Your task to perform on an android device: Open the stopwatch Image 0: 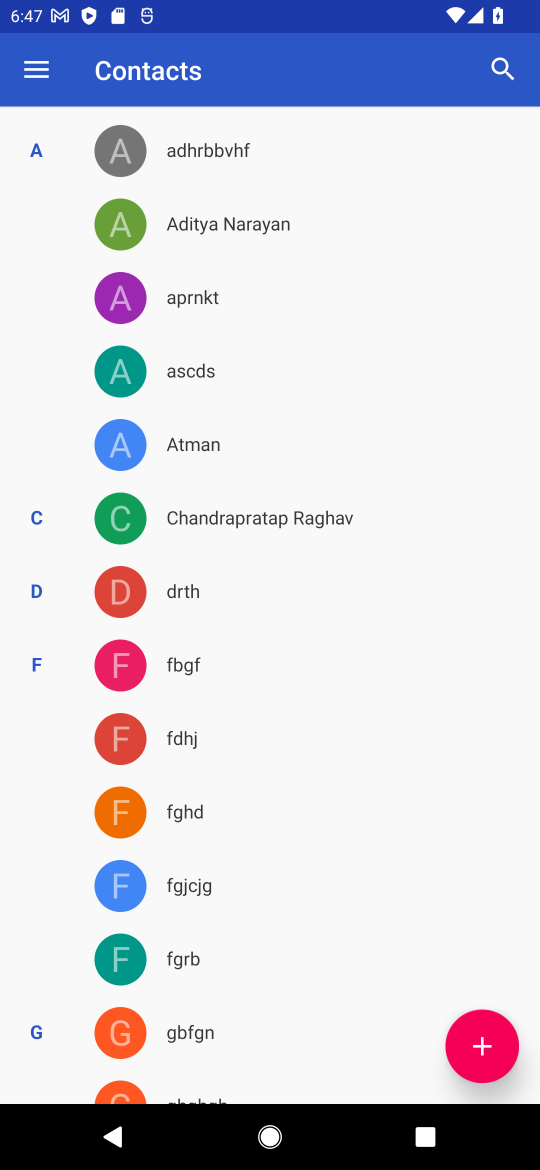
Step 0: press home button
Your task to perform on an android device: Open the stopwatch Image 1: 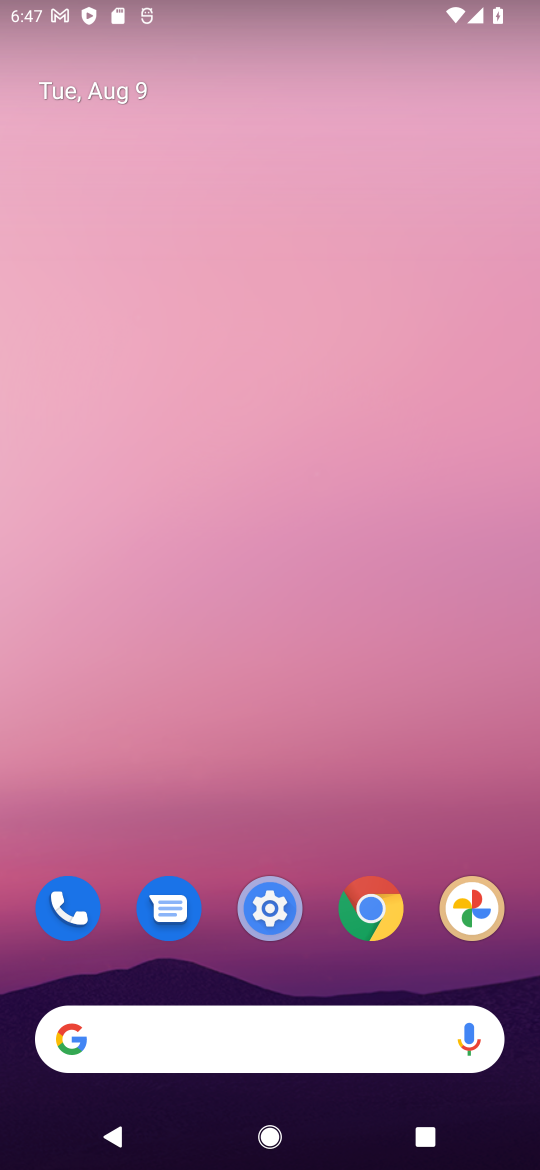
Step 1: drag from (325, 894) to (356, 278)
Your task to perform on an android device: Open the stopwatch Image 2: 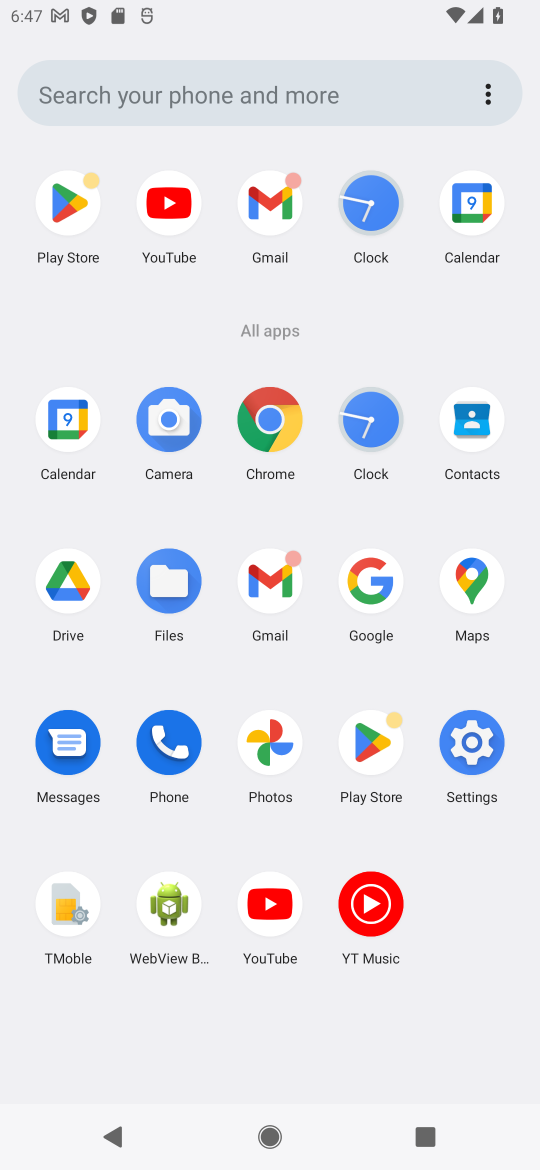
Step 2: click (375, 422)
Your task to perform on an android device: Open the stopwatch Image 3: 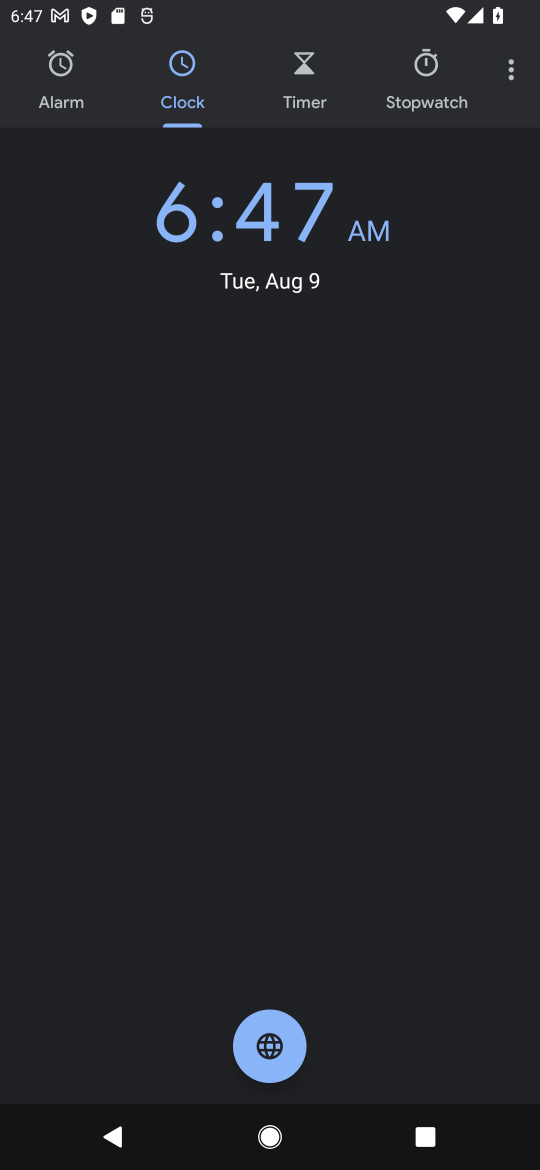
Step 3: click (435, 65)
Your task to perform on an android device: Open the stopwatch Image 4: 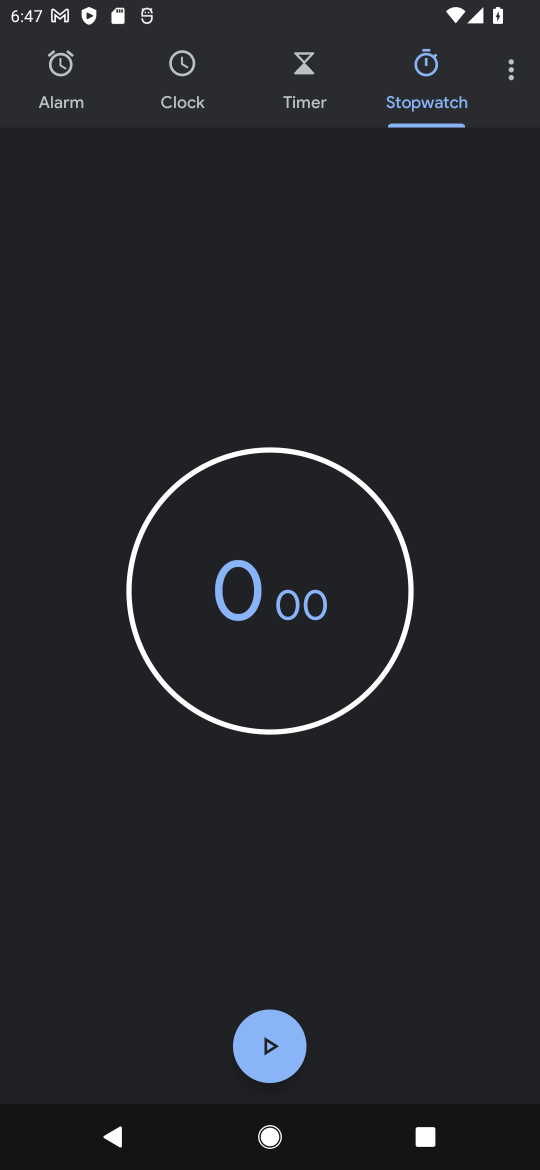
Step 4: task complete